Your task to perform on an android device: check battery use Image 0: 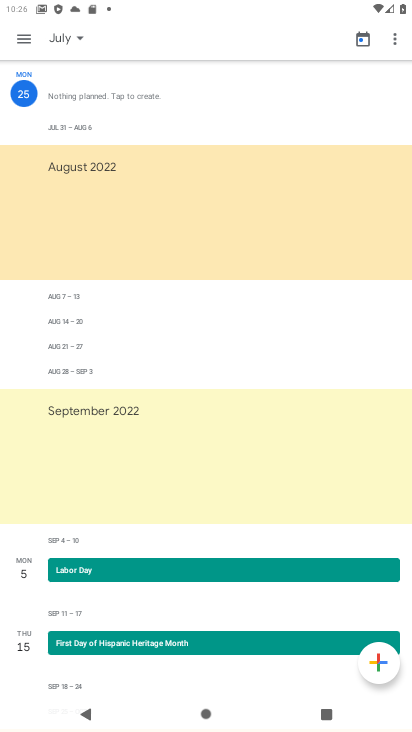
Step 0: press home button
Your task to perform on an android device: check battery use Image 1: 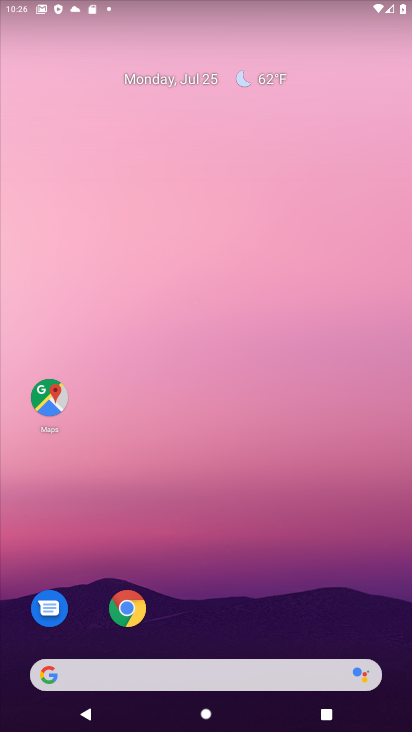
Step 1: drag from (219, 611) to (318, 140)
Your task to perform on an android device: check battery use Image 2: 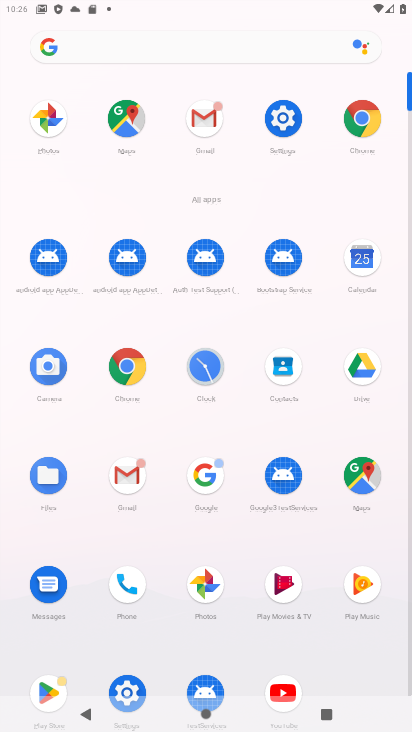
Step 2: click (123, 682)
Your task to perform on an android device: check battery use Image 3: 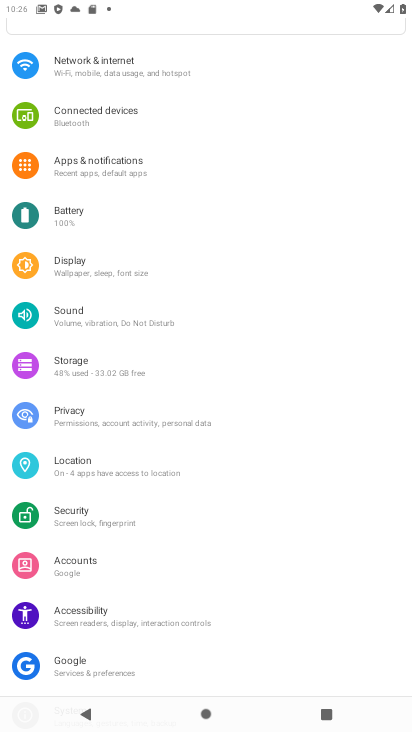
Step 3: click (87, 214)
Your task to perform on an android device: check battery use Image 4: 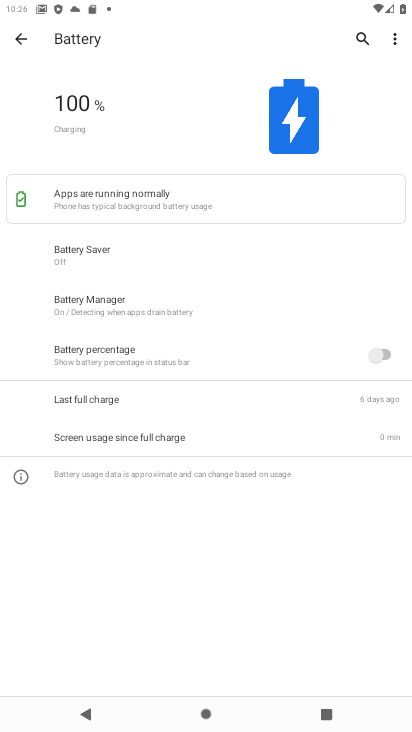
Step 4: click (396, 32)
Your task to perform on an android device: check battery use Image 5: 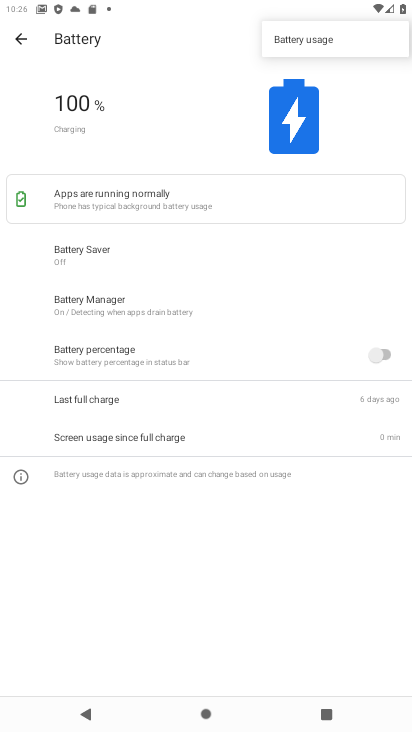
Step 5: click (319, 47)
Your task to perform on an android device: check battery use Image 6: 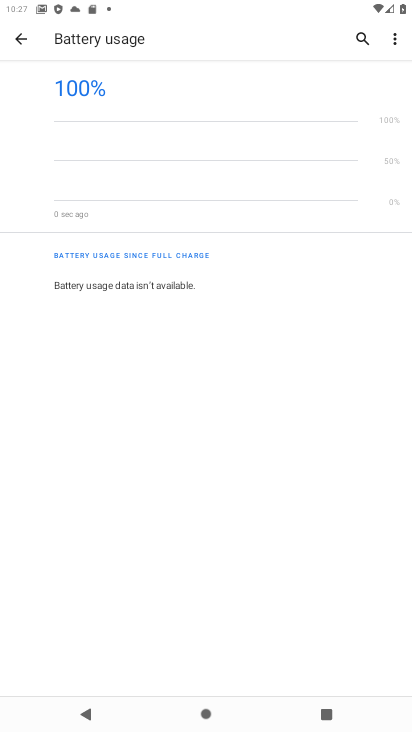
Step 6: task complete